Your task to perform on an android device: Go to calendar. Show me events next week Image 0: 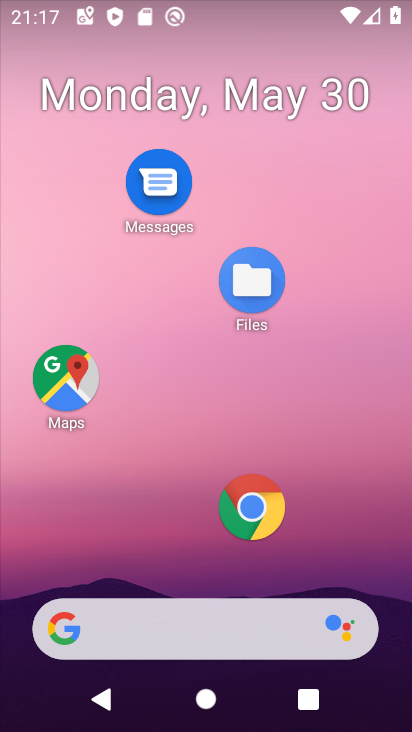
Step 0: drag from (175, 599) to (167, 1)
Your task to perform on an android device: Go to calendar. Show me events next week Image 1: 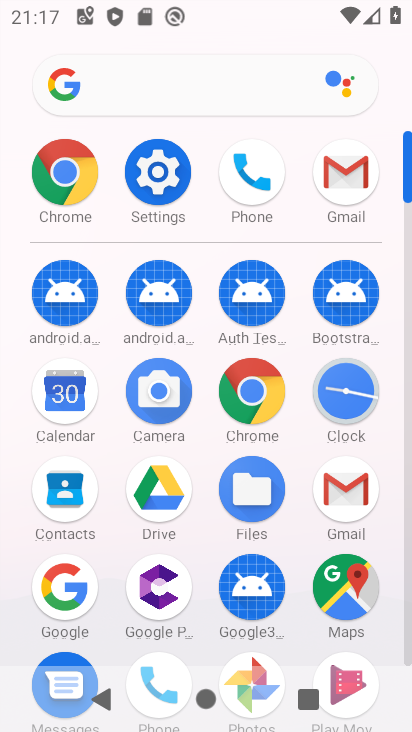
Step 1: click (77, 386)
Your task to perform on an android device: Go to calendar. Show me events next week Image 2: 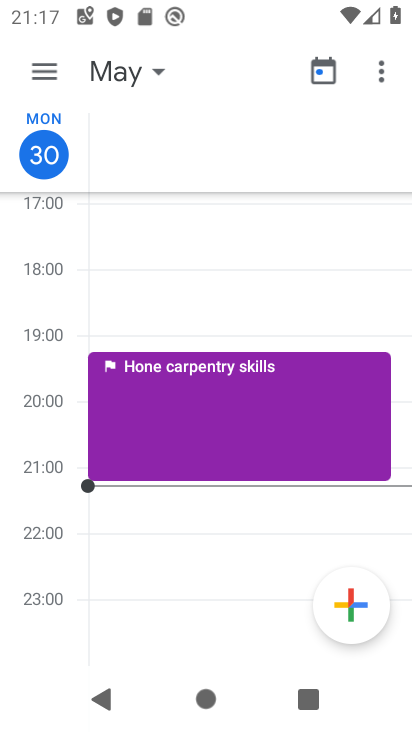
Step 2: click (52, 75)
Your task to perform on an android device: Go to calendar. Show me events next week Image 3: 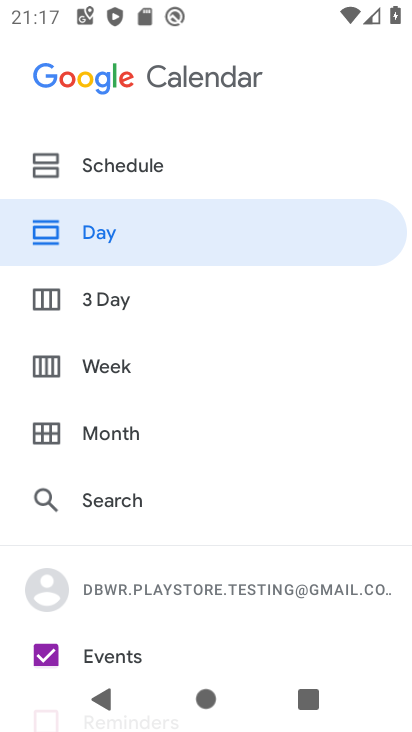
Step 3: click (122, 364)
Your task to perform on an android device: Go to calendar. Show me events next week Image 4: 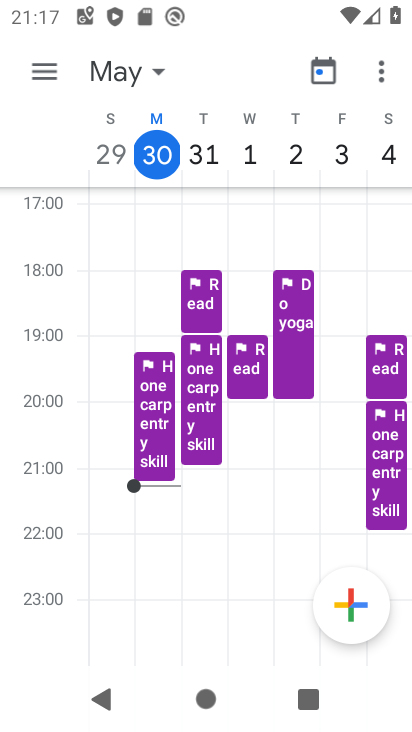
Step 4: task complete